Your task to perform on an android device: What's the weather today? Image 0: 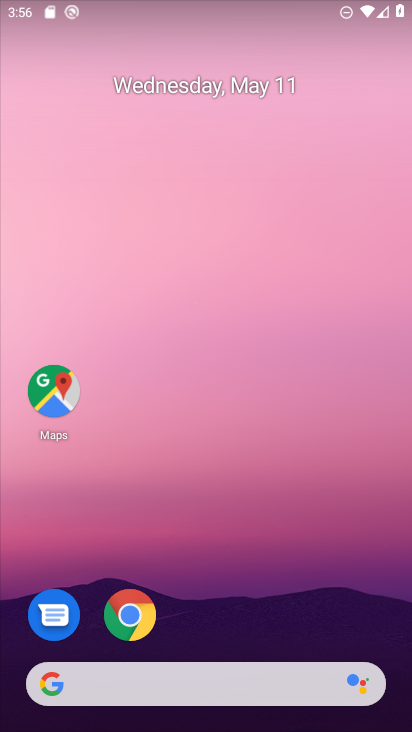
Step 0: drag from (237, 594) to (252, 114)
Your task to perform on an android device: What's the weather today? Image 1: 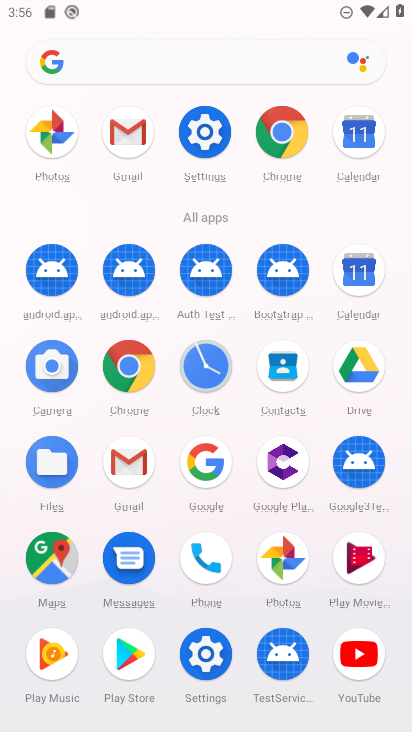
Step 1: click (212, 462)
Your task to perform on an android device: What's the weather today? Image 2: 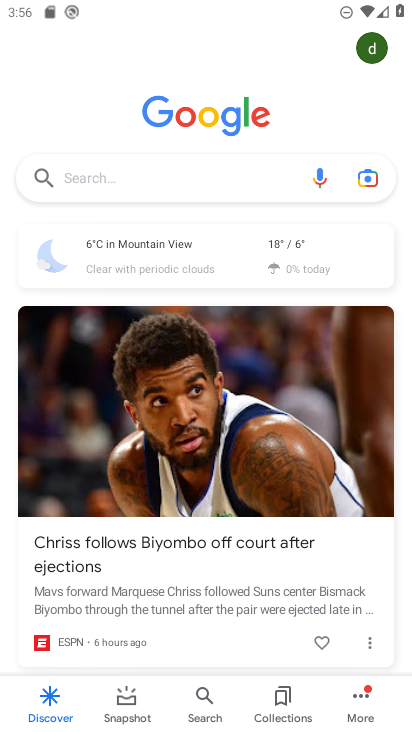
Step 2: click (175, 247)
Your task to perform on an android device: What's the weather today? Image 3: 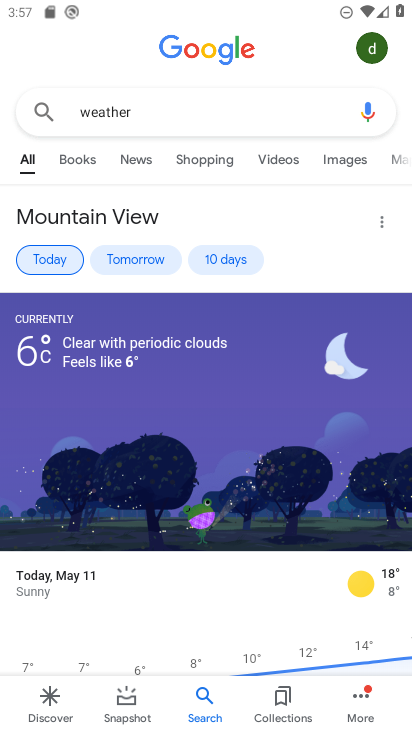
Step 3: task complete